Your task to perform on an android device: Go to Google Image 0: 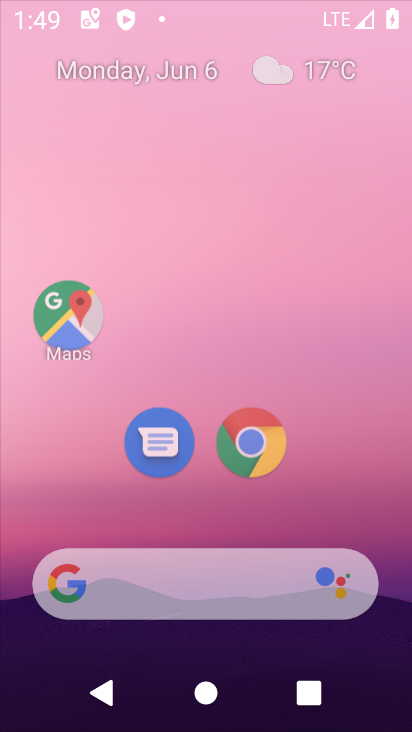
Step 0: press home button
Your task to perform on an android device: Go to Google Image 1: 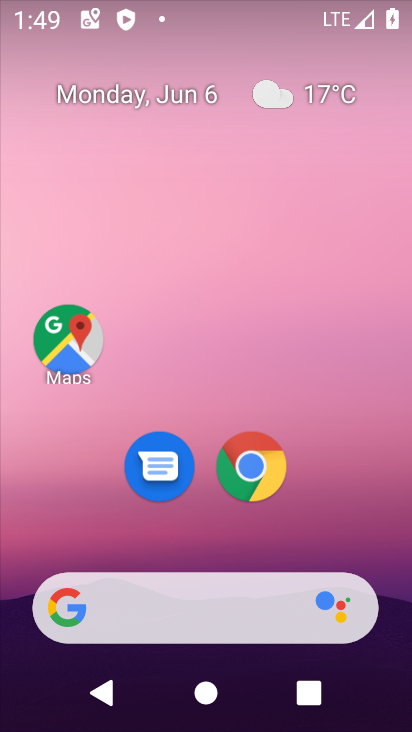
Step 1: click (75, 608)
Your task to perform on an android device: Go to Google Image 2: 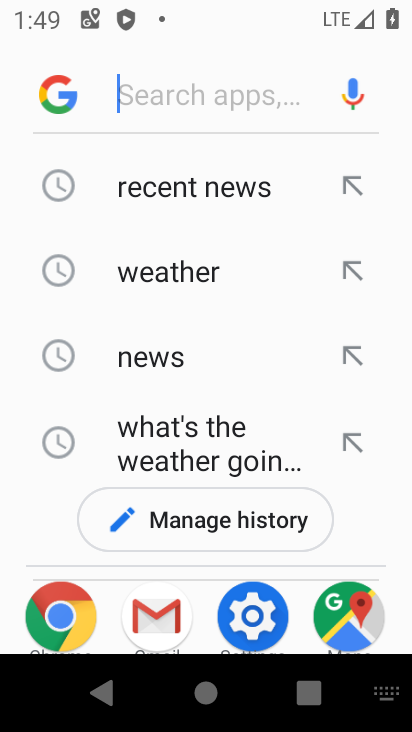
Step 2: task complete